Your task to perform on an android device: turn off javascript in the chrome app Image 0: 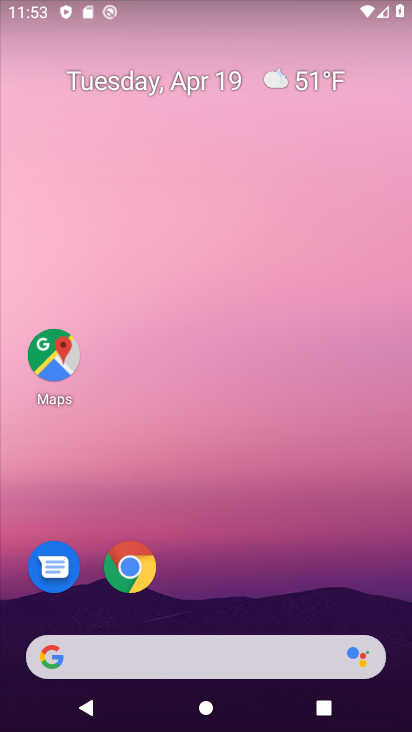
Step 0: click (129, 561)
Your task to perform on an android device: turn off javascript in the chrome app Image 1: 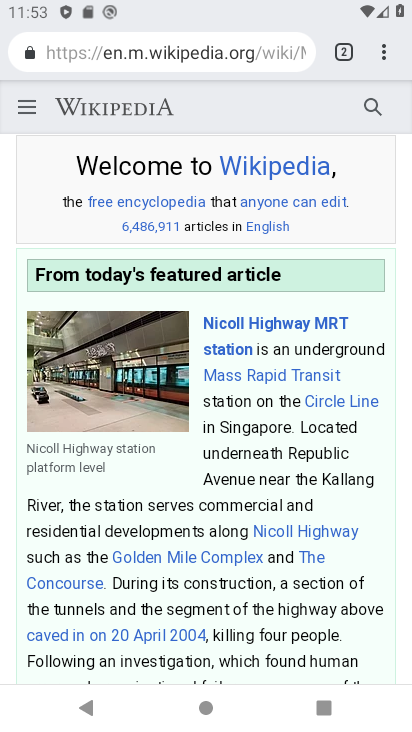
Step 1: click (387, 51)
Your task to perform on an android device: turn off javascript in the chrome app Image 2: 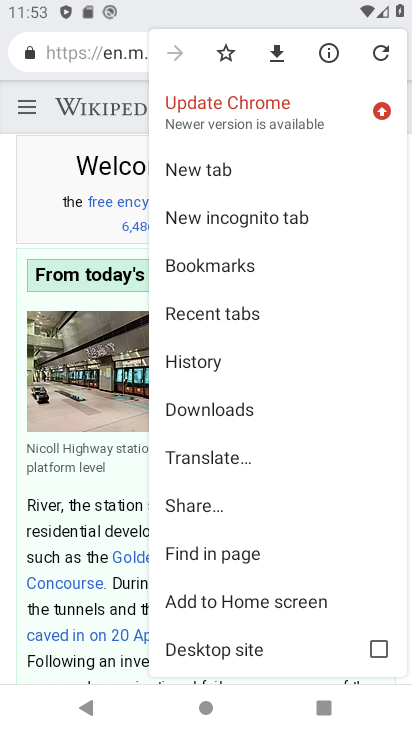
Step 2: click (383, 54)
Your task to perform on an android device: turn off javascript in the chrome app Image 3: 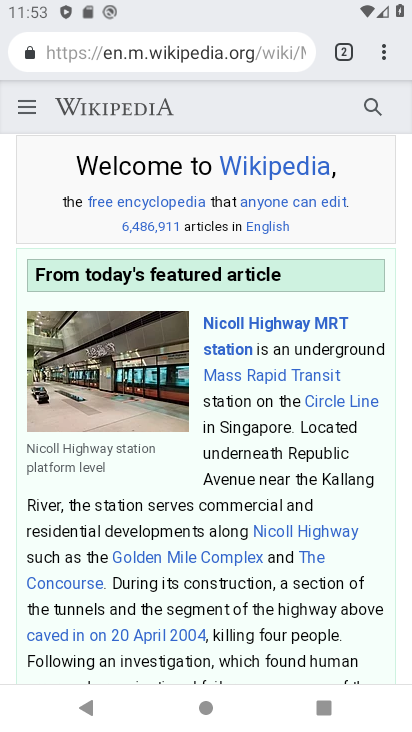
Step 3: drag from (236, 581) to (296, 186)
Your task to perform on an android device: turn off javascript in the chrome app Image 4: 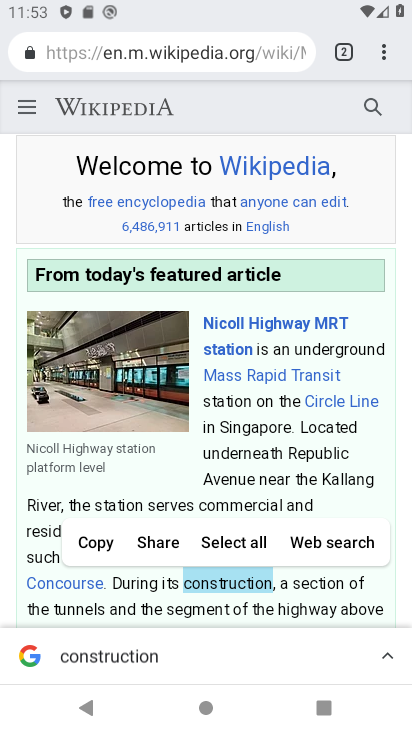
Step 4: drag from (279, 285) to (389, 57)
Your task to perform on an android device: turn off javascript in the chrome app Image 5: 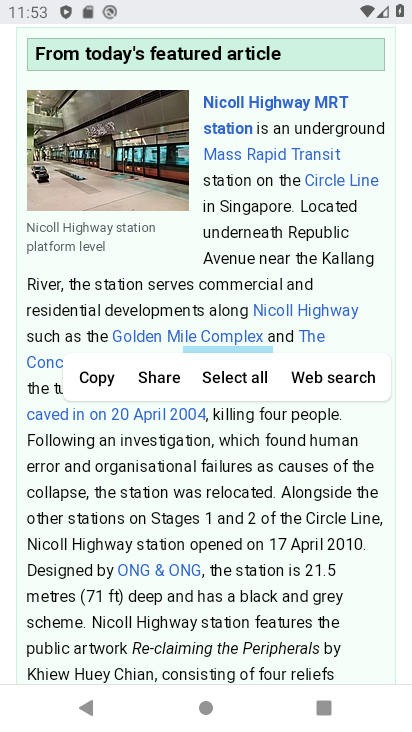
Step 5: drag from (227, 230) to (192, 720)
Your task to perform on an android device: turn off javascript in the chrome app Image 6: 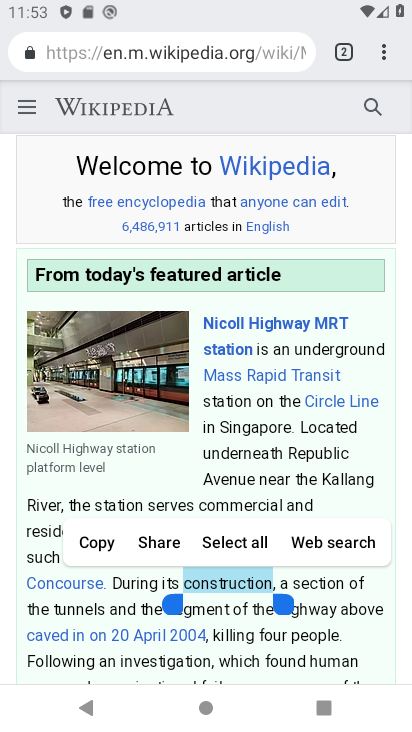
Step 6: click (383, 44)
Your task to perform on an android device: turn off javascript in the chrome app Image 7: 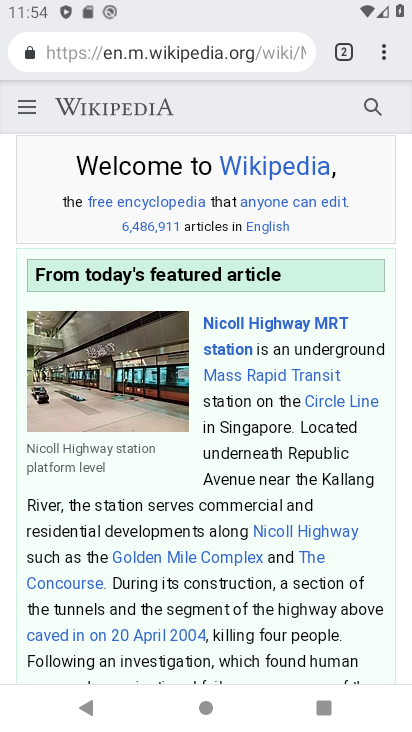
Step 7: click (380, 47)
Your task to perform on an android device: turn off javascript in the chrome app Image 8: 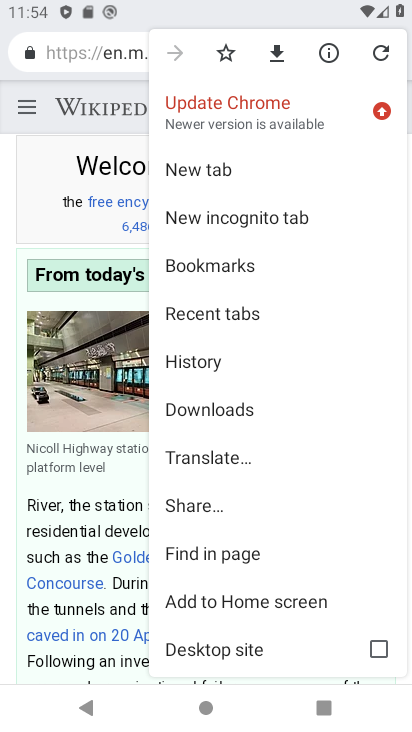
Step 8: drag from (242, 593) to (317, 120)
Your task to perform on an android device: turn off javascript in the chrome app Image 9: 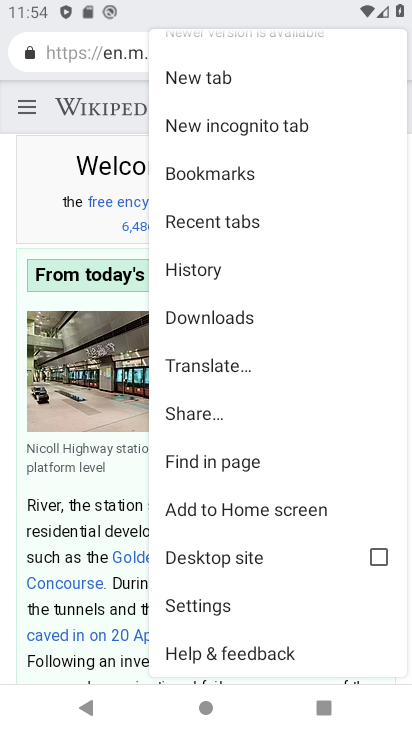
Step 9: click (191, 601)
Your task to perform on an android device: turn off javascript in the chrome app Image 10: 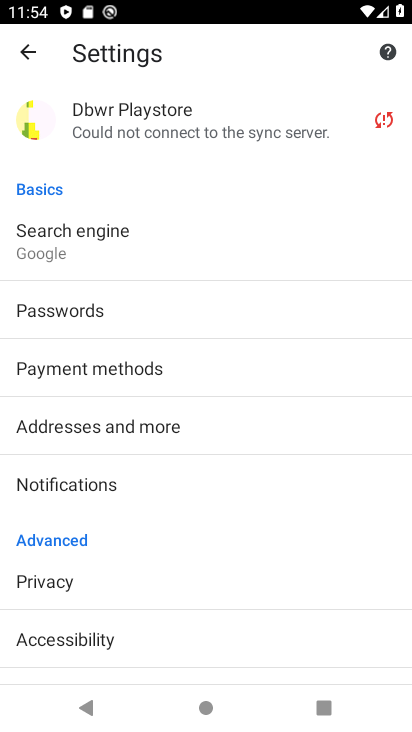
Step 10: drag from (89, 594) to (100, 340)
Your task to perform on an android device: turn off javascript in the chrome app Image 11: 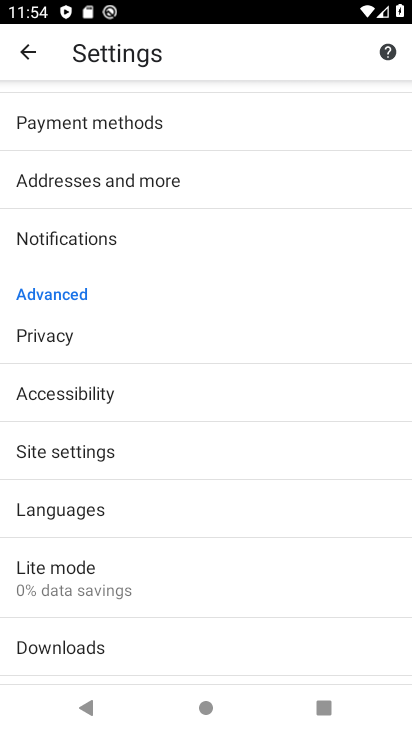
Step 11: click (73, 464)
Your task to perform on an android device: turn off javascript in the chrome app Image 12: 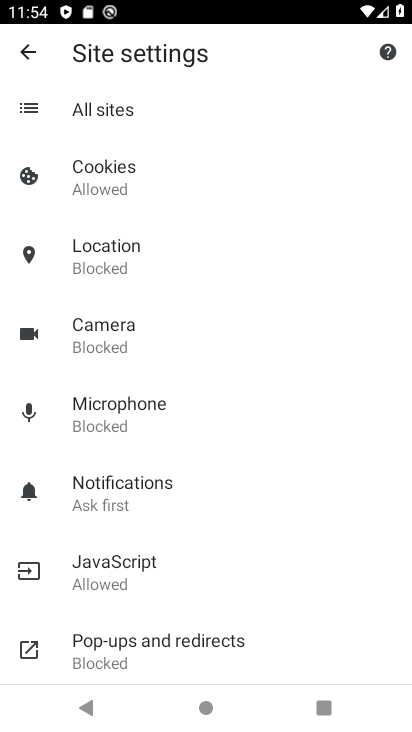
Step 12: click (116, 571)
Your task to perform on an android device: turn off javascript in the chrome app Image 13: 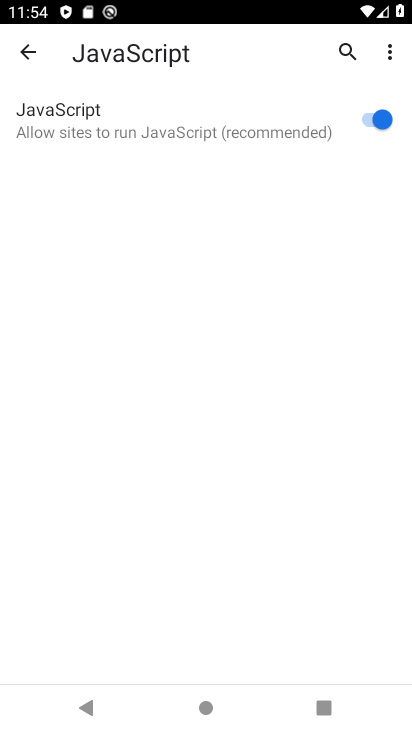
Step 13: click (366, 117)
Your task to perform on an android device: turn off javascript in the chrome app Image 14: 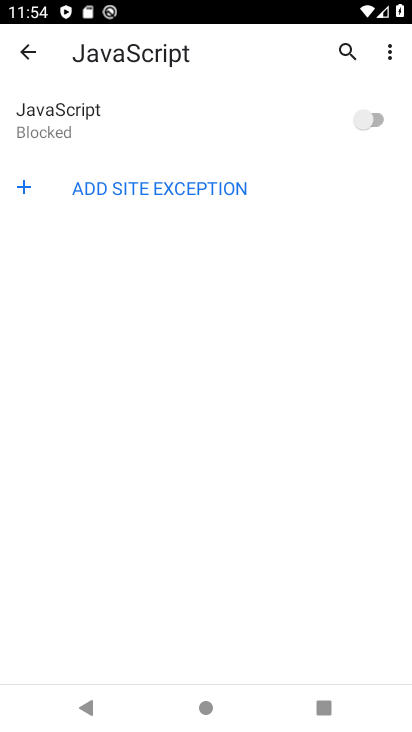
Step 14: task complete